Your task to perform on an android device: toggle priority inbox in the gmail app Image 0: 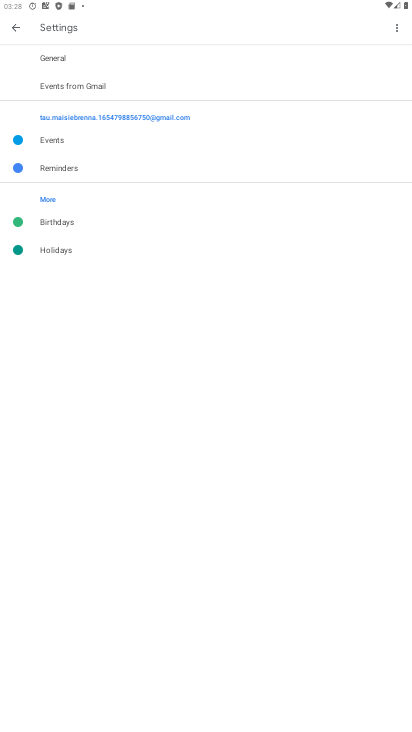
Step 0: press home button
Your task to perform on an android device: toggle priority inbox in the gmail app Image 1: 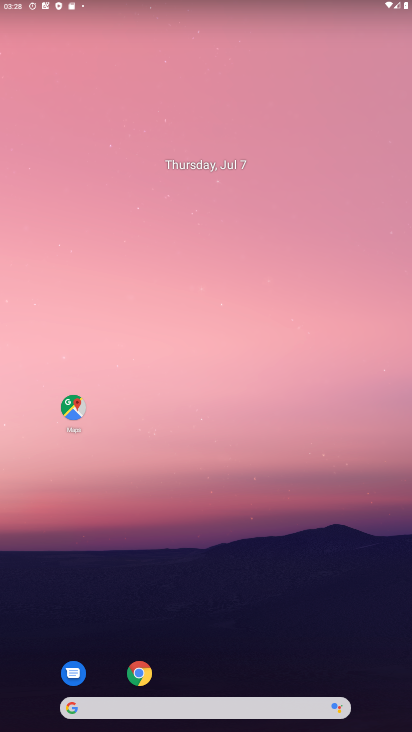
Step 1: drag from (209, 667) to (209, 113)
Your task to perform on an android device: toggle priority inbox in the gmail app Image 2: 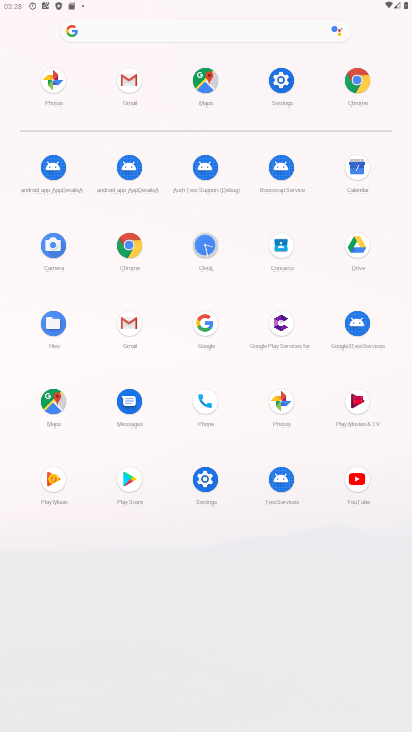
Step 2: click (134, 87)
Your task to perform on an android device: toggle priority inbox in the gmail app Image 3: 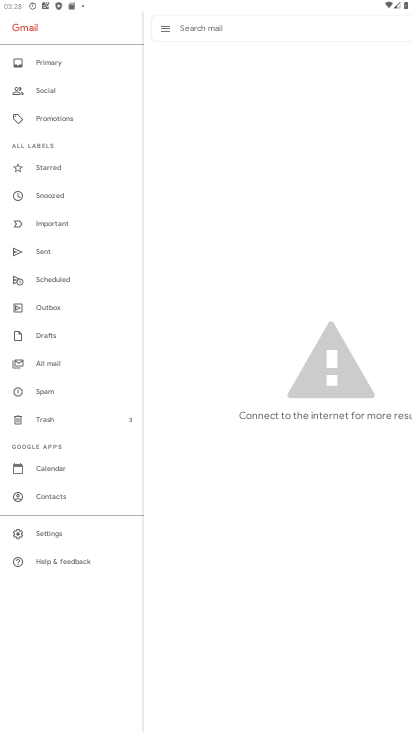
Step 3: click (62, 526)
Your task to perform on an android device: toggle priority inbox in the gmail app Image 4: 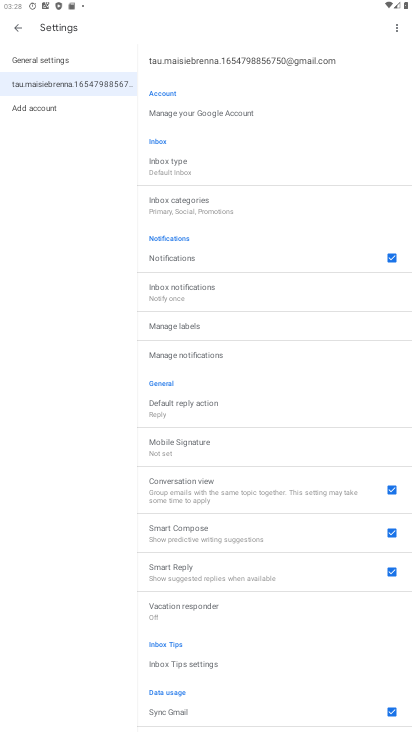
Step 4: click (193, 169)
Your task to perform on an android device: toggle priority inbox in the gmail app Image 5: 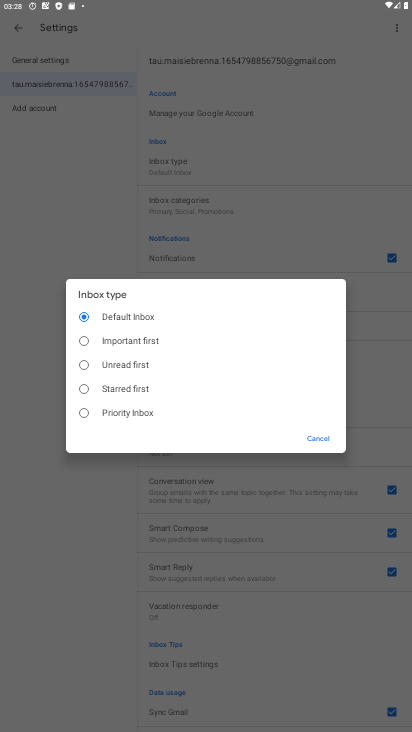
Step 5: click (121, 412)
Your task to perform on an android device: toggle priority inbox in the gmail app Image 6: 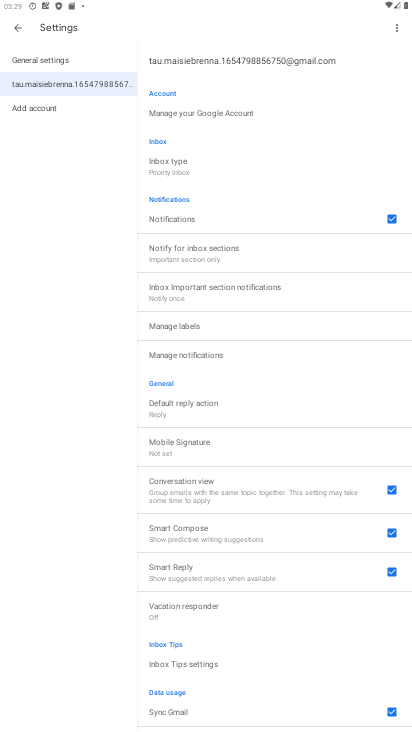
Step 6: press home button
Your task to perform on an android device: toggle priority inbox in the gmail app Image 7: 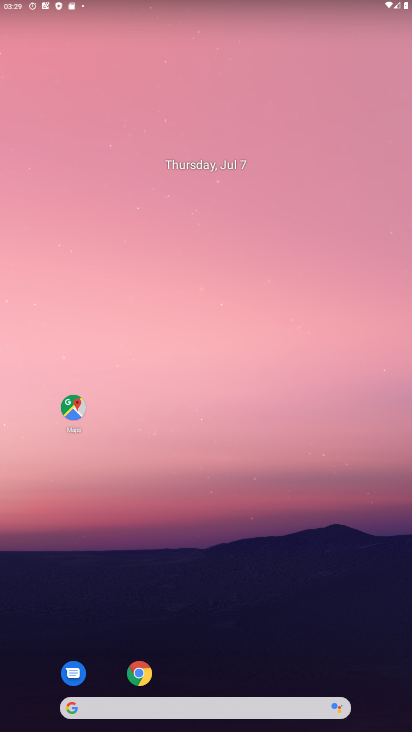
Step 7: drag from (168, 657) to (178, 192)
Your task to perform on an android device: toggle priority inbox in the gmail app Image 8: 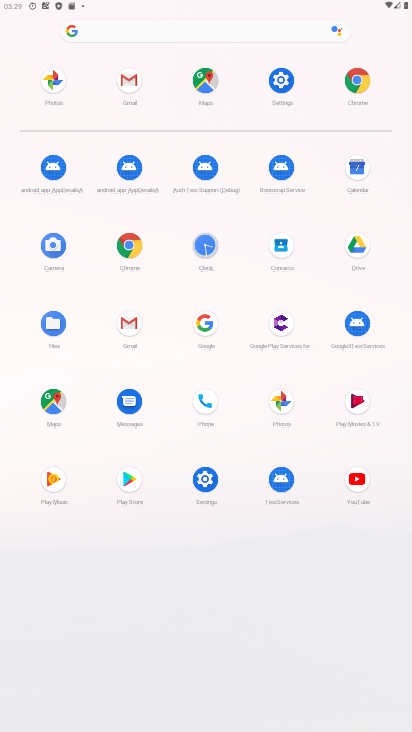
Step 8: click (127, 74)
Your task to perform on an android device: toggle priority inbox in the gmail app Image 9: 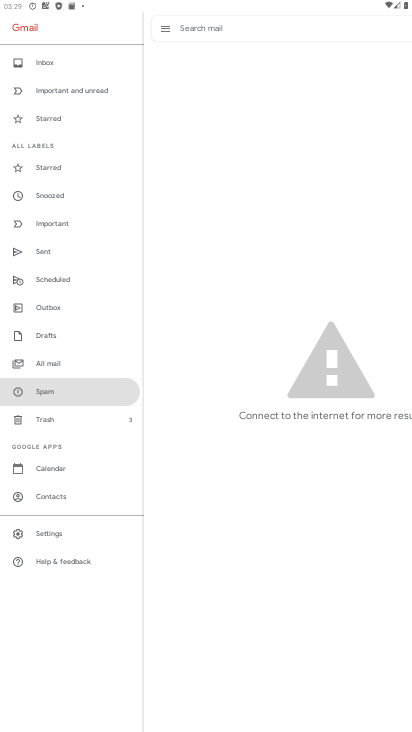
Step 9: click (84, 527)
Your task to perform on an android device: toggle priority inbox in the gmail app Image 10: 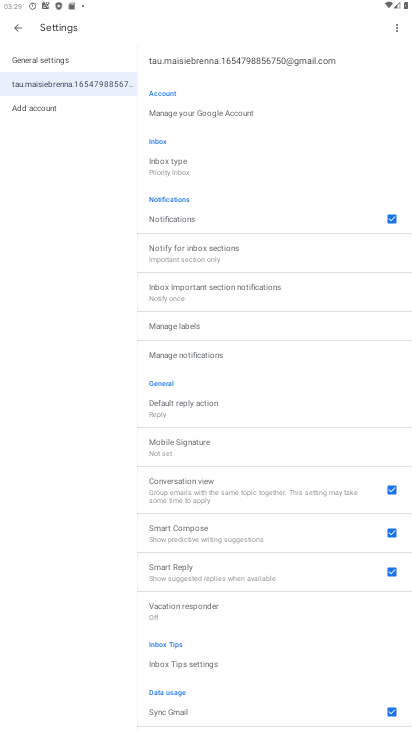
Step 10: click (203, 156)
Your task to perform on an android device: toggle priority inbox in the gmail app Image 11: 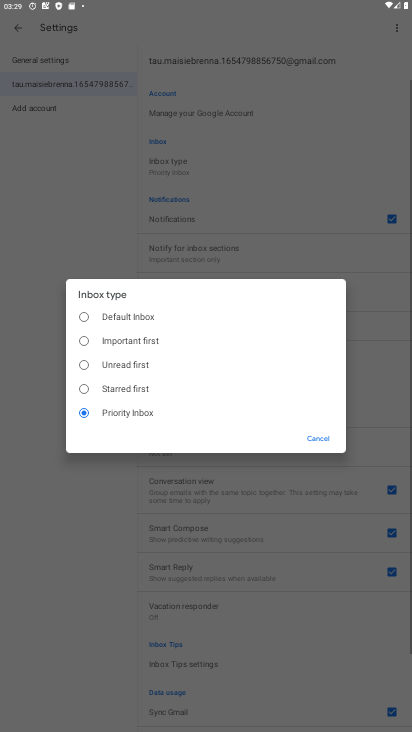
Step 11: task complete